Your task to perform on an android device: toggle show notifications on the lock screen Image 0: 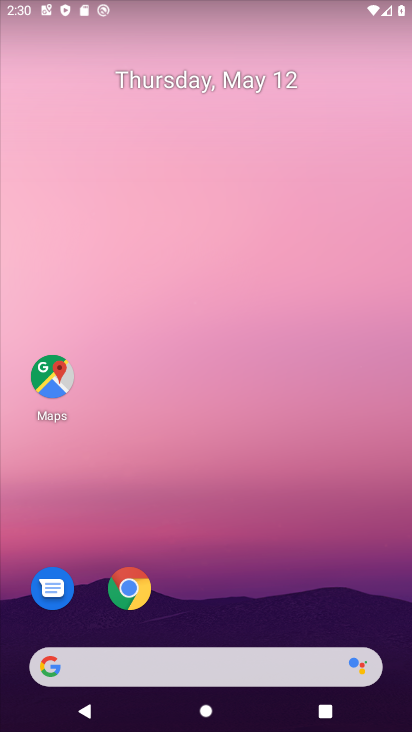
Step 0: drag from (282, 531) to (262, 129)
Your task to perform on an android device: toggle show notifications on the lock screen Image 1: 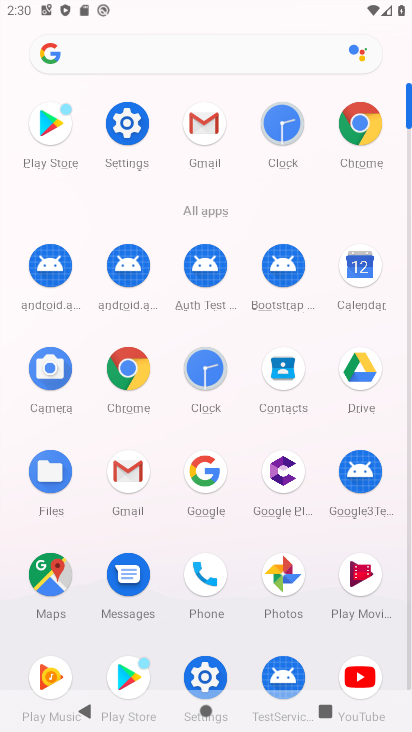
Step 1: click (141, 123)
Your task to perform on an android device: toggle show notifications on the lock screen Image 2: 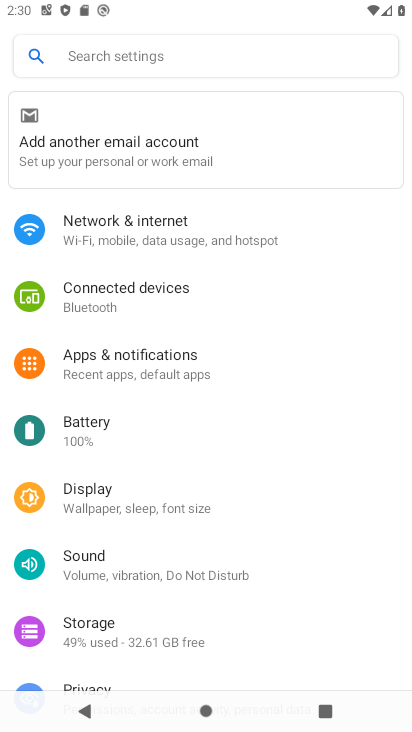
Step 2: click (141, 358)
Your task to perform on an android device: toggle show notifications on the lock screen Image 3: 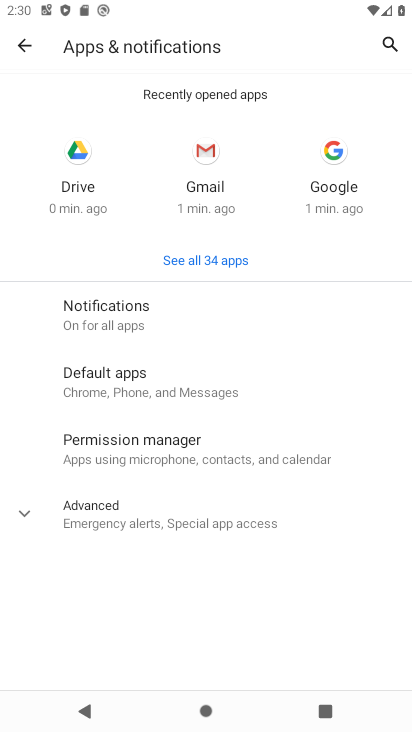
Step 3: click (132, 343)
Your task to perform on an android device: toggle show notifications on the lock screen Image 4: 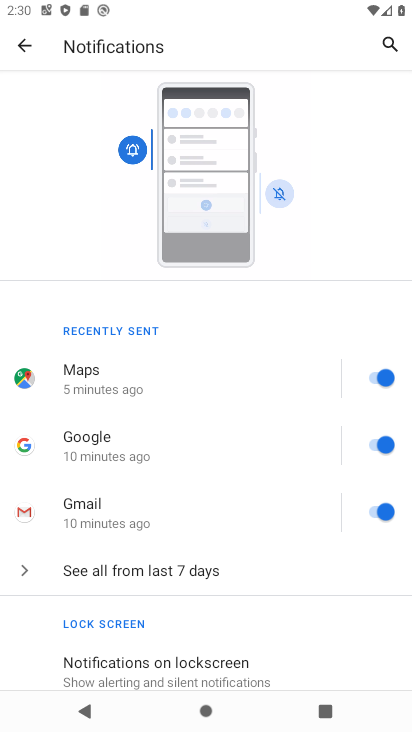
Step 4: drag from (206, 651) to (200, 338)
Your task to perform on an android device: toggle show notifications on the lock screen Image 5: 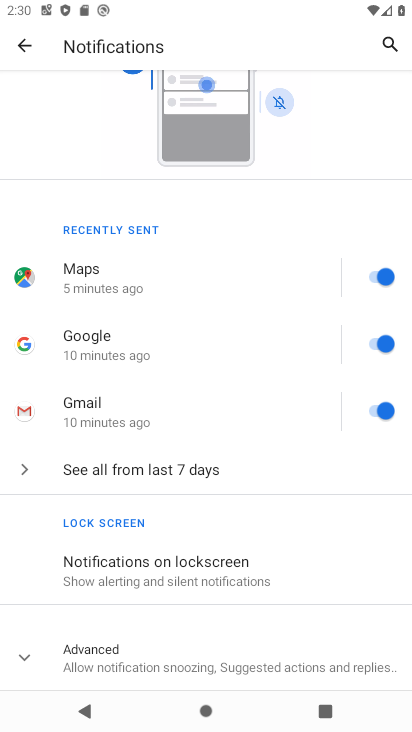
Step 5: click (144, 566)
Your task to perform on an android device: toggle show notifications on the lock screen Image 6: 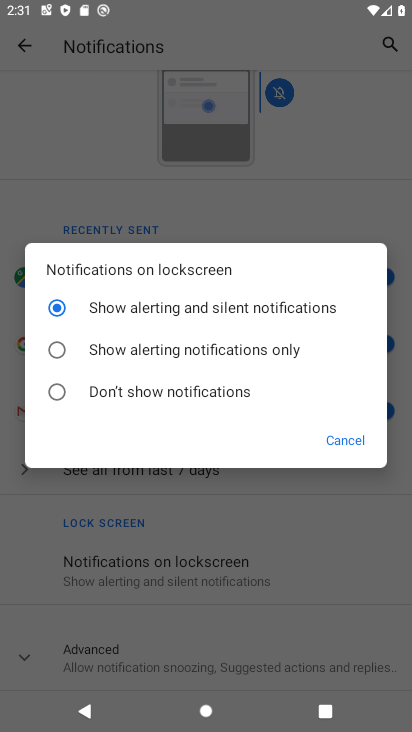
Step 6: click (131, 349)
Your task to perform on an android device: toggle show notifications on the lock screen Image 7: 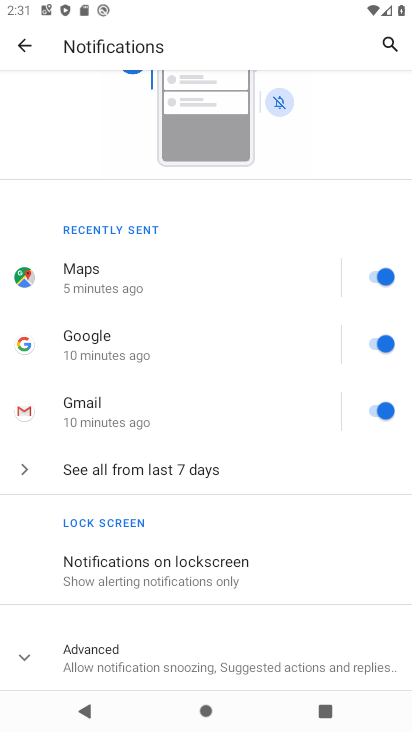
Step 7: task complete